Your task to perform on an android device: turn on airplane mode Image 0: 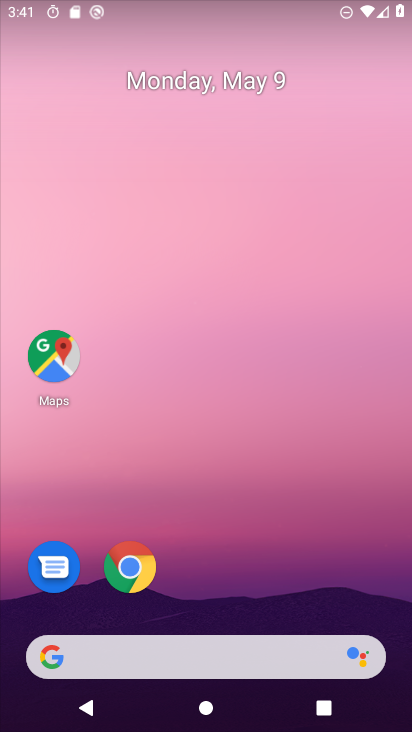
Step 0: drag from (230, 450) to (224, 5)
Your task to perform on an android device: turn on airplane mode Image 1: 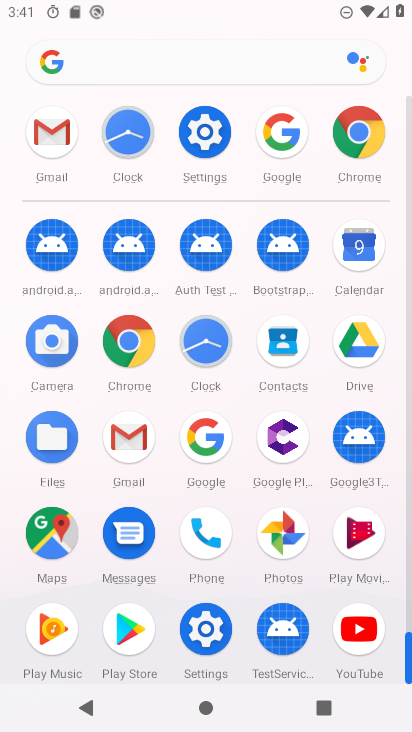
Step 1: click (193, 129)
Your task to perform on an android device: turn on airplane mode Image 2: 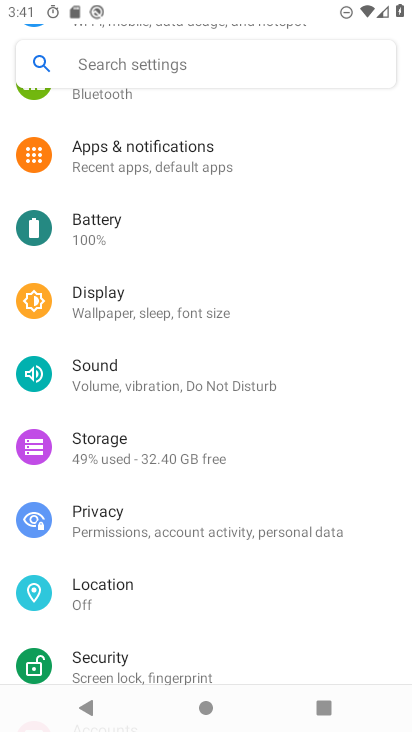
Step 2: drag from (204, 134) to (173, 441)
Your task to perform on an android device: turn on airplane mode Image 3: 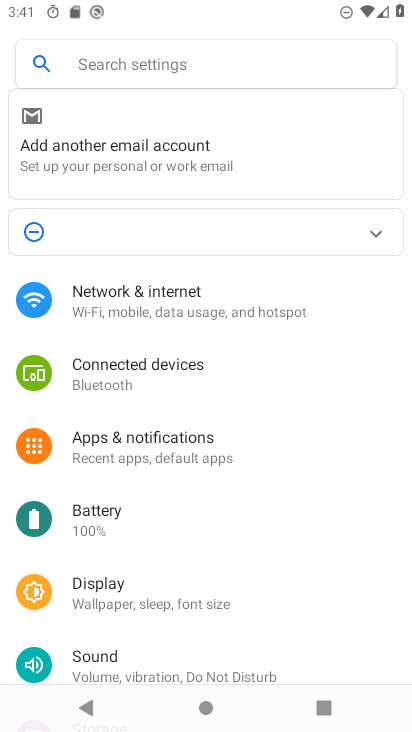
Step 3: click (181, 294)
Your task to perform on an android device: turn on airplane mode Image 4: 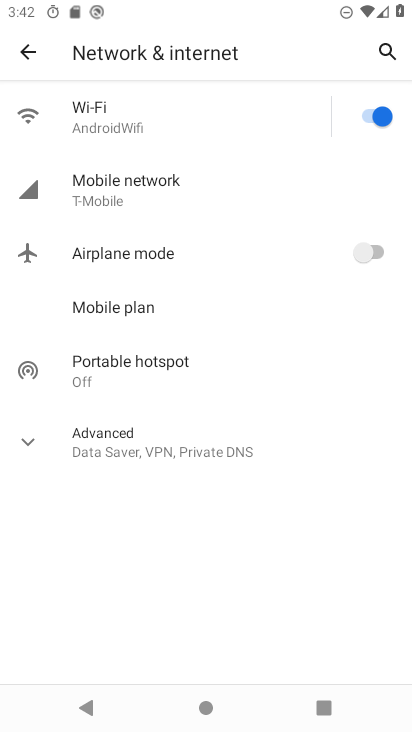
Step 4: click (373, 251)
Your task to perform on an android device: turn on airplane mode Image 5: 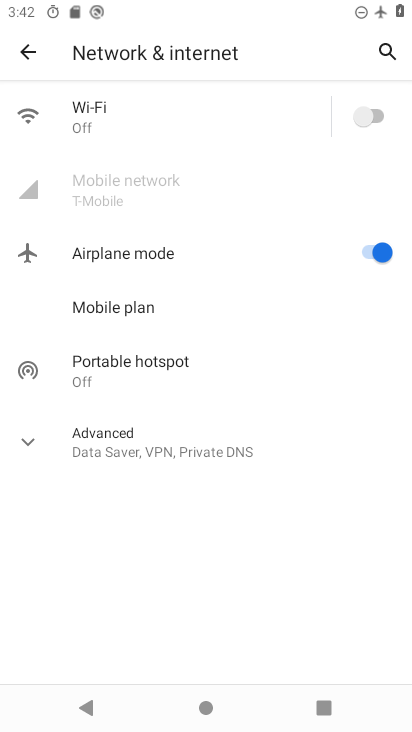
Step 5: task complete